Your task to perform on an android device: turn pop-ups on in chrome Image 0: 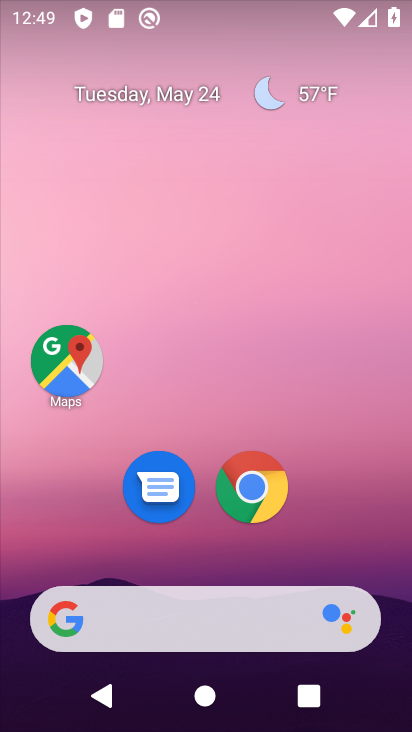
Step 0: click (247, 485)
Your task to perform on an android device: turn pop-ups on in chrome Image 1: 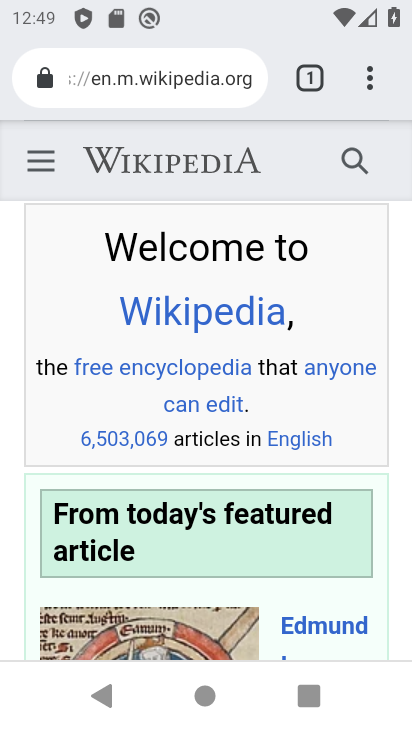
Step 1: click (371, 85)
Your task to perform on an android device: turn pop-ups on in chrome Image 2: 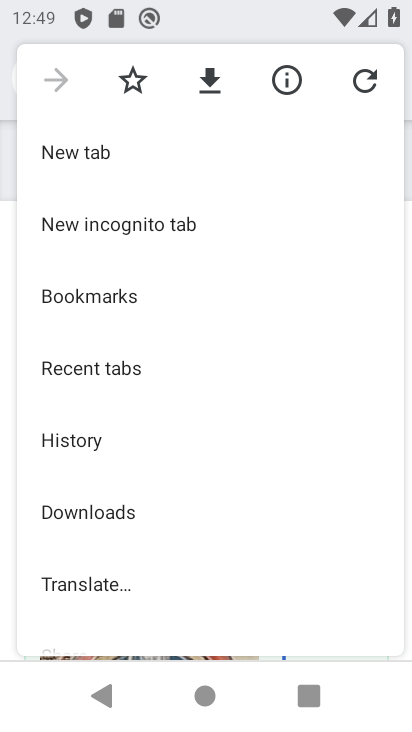
Step 2: drag from (108, 589) to (99, 147)
Your task to perform on an android device: turn pop-ups on in chrome Image 3: 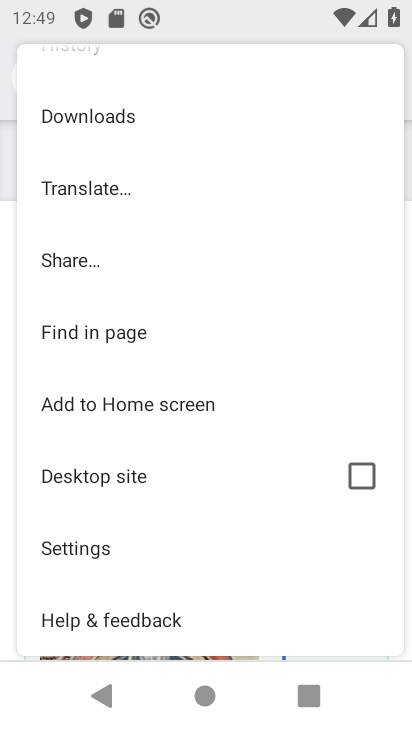
Step 3: click (91, 549)
Your task to perform on an android device: turn pop-ups on in chrome Image 4: 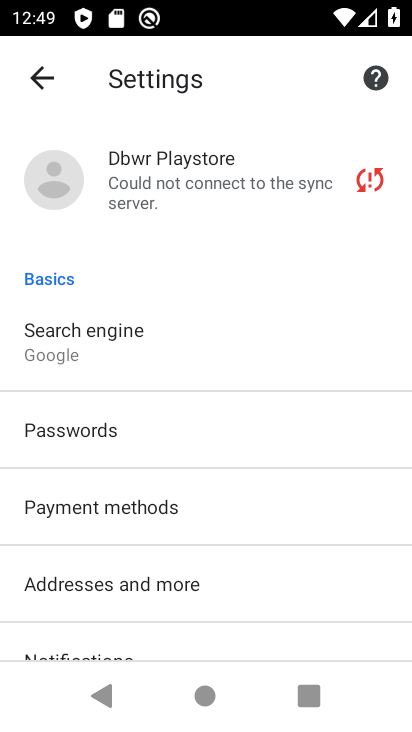
Step 4: drag from (123, 625) to (143, 329)
Your task to perform on an android device: turn pop-ups on in chrome Image 5: 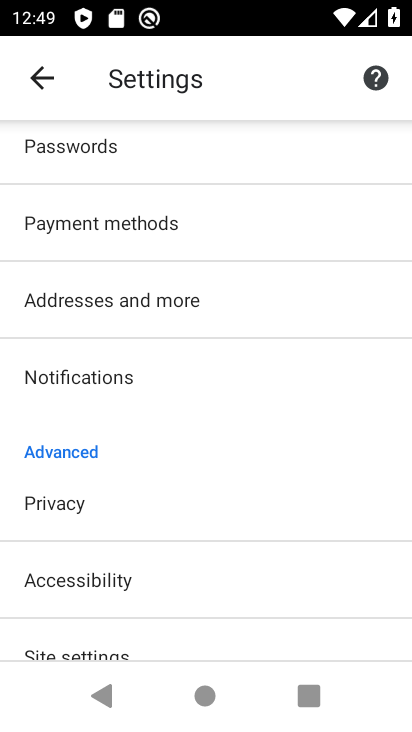
Step 5: drag from (135, 636) to (157, 375)
Your task to perform on an android device: turn pop-ups on in chrome Image 6: 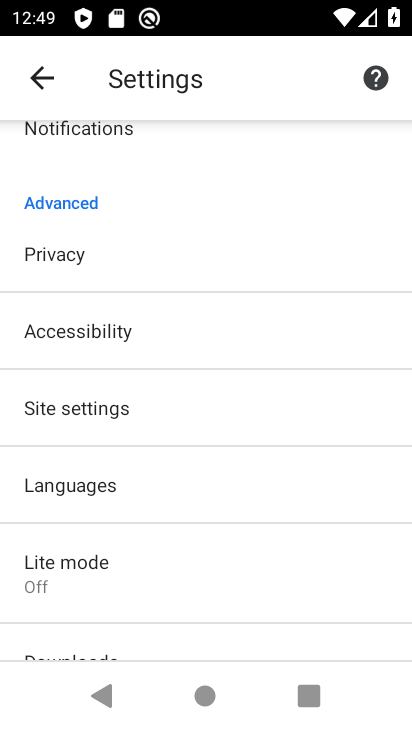
Step 6: click (109, 407)
Your task to perform on an android device: turn pop-ups on in chrome Image 7: 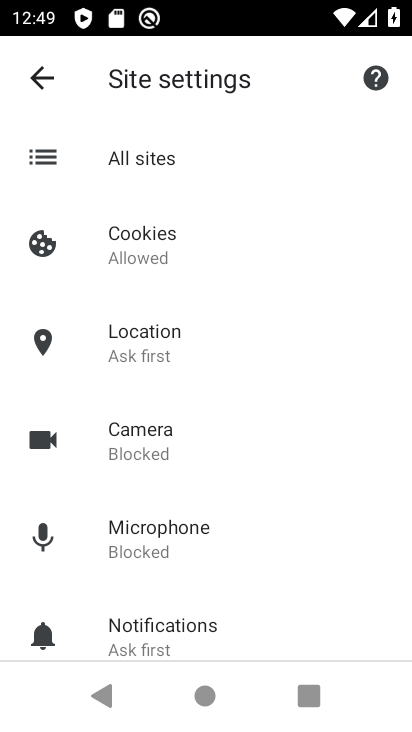
Step 7: drag from (198, 614) to (201, 286)
Your task to perform on an android device: turn pop-ups on in chrome Image 8: 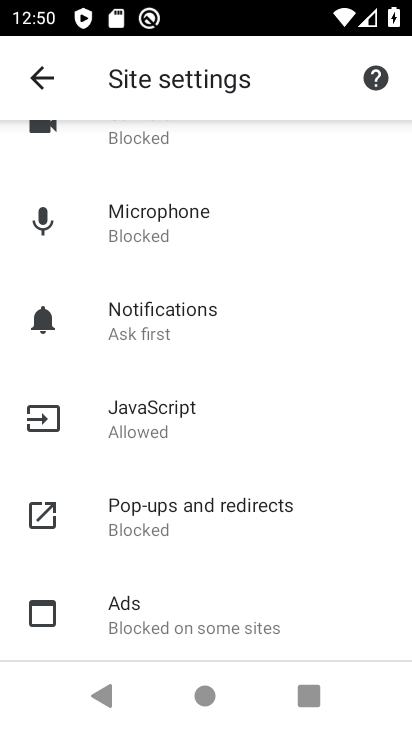
Step 8: click (167, 505)
Your task to perform on an android device: turn pop-ups on in chrome Image 9: 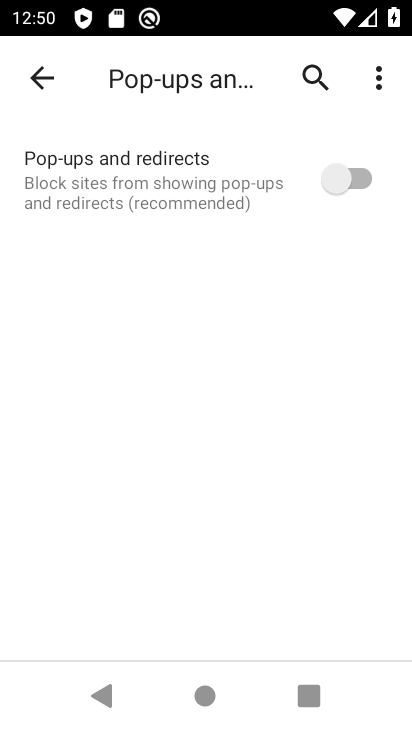
Step 9: click (353, 179)
Your task to perform on an android device: turn pop-ups on in chrome Image 10: 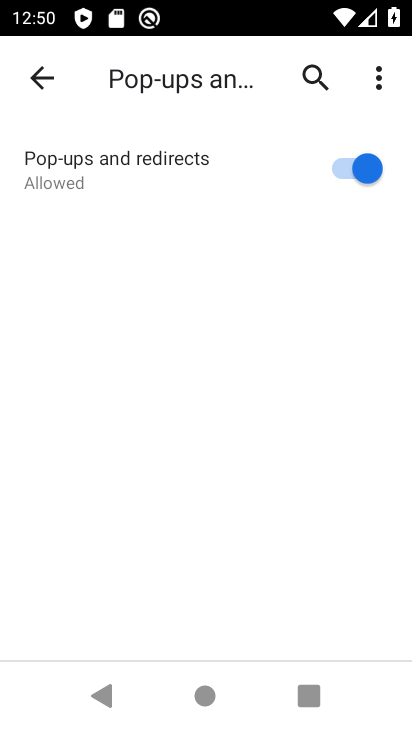
Step 10: task complete